Your task to perform on an android device: change the clock style Image 0: 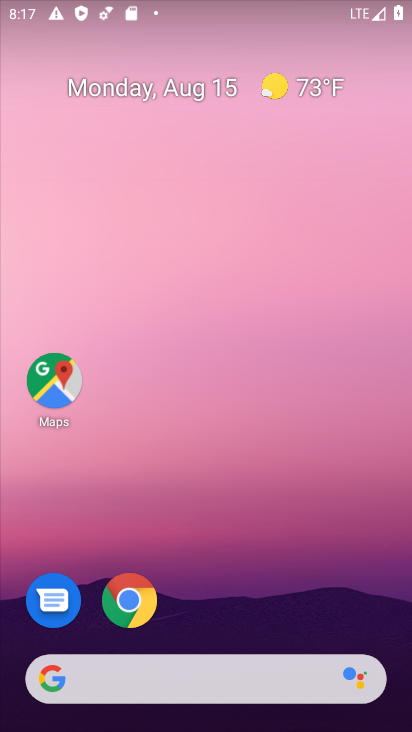
Step 0: drag from (218, 546) to (207, 88)
Your task to perform on an android device: change the clock style Image 1: 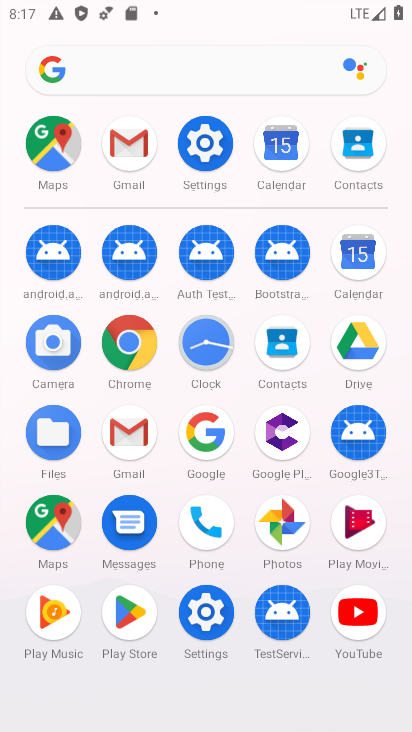
Step 1: click (205, 346)
Your task to perform on an android device: change the clock style Image 2: 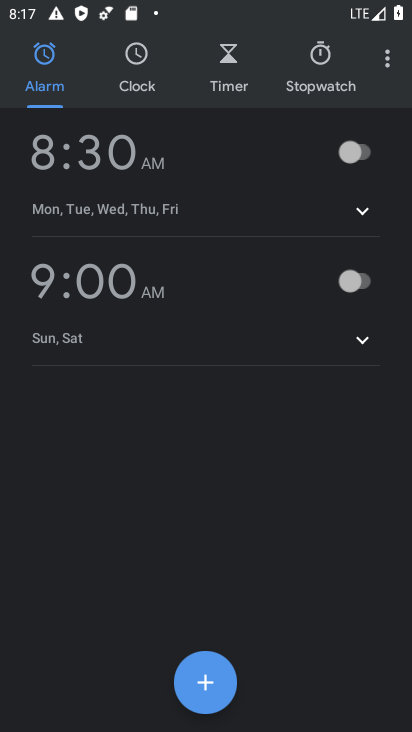
Step 2: click (386, 68)
Your task to perform on an android device: change the clock style Image 3: 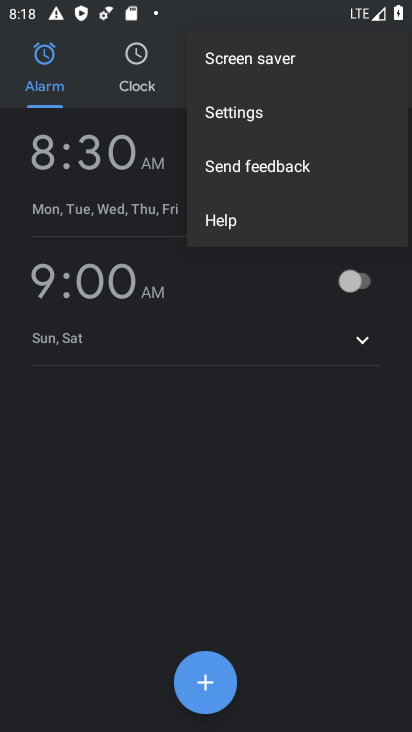
Step 3: click (246, 108)
Your task to perform on an android device: change the clock style Image 4: 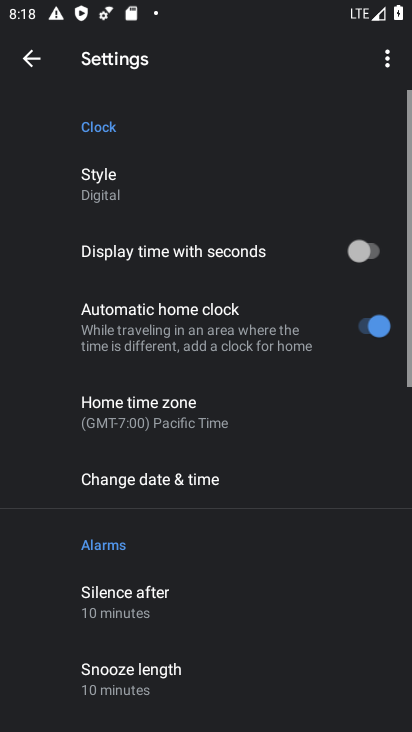
Step 4: click (99, 186)
Your task to perform on an android device: change the clock style Image 5: 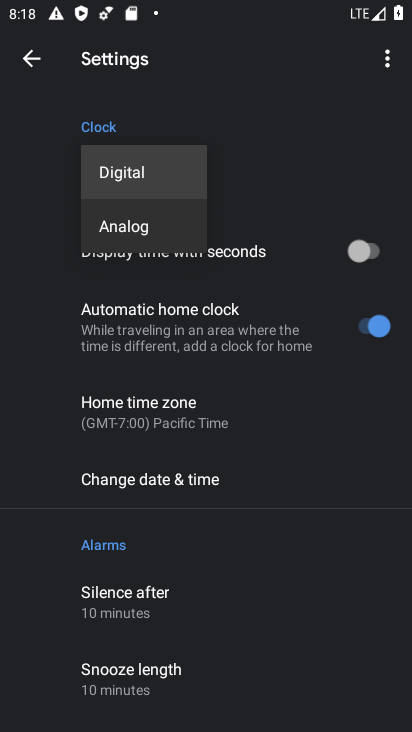
Step 5: click (113, 217)
Your task to perform on an android device: change the clock style Image 6: 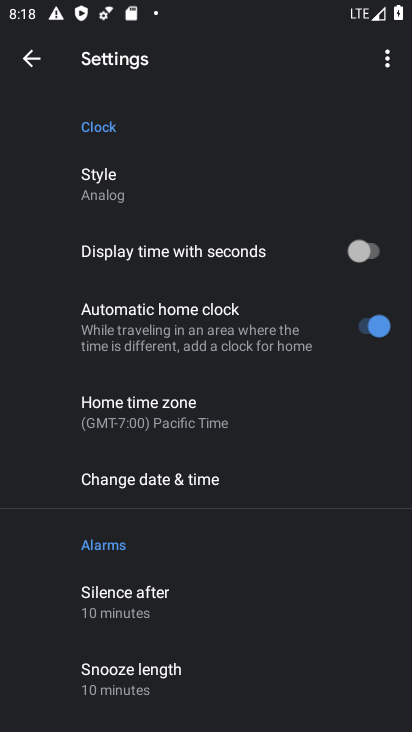
Step 6: task complete